Your task to perform on an android device: change timer sound Image 0: 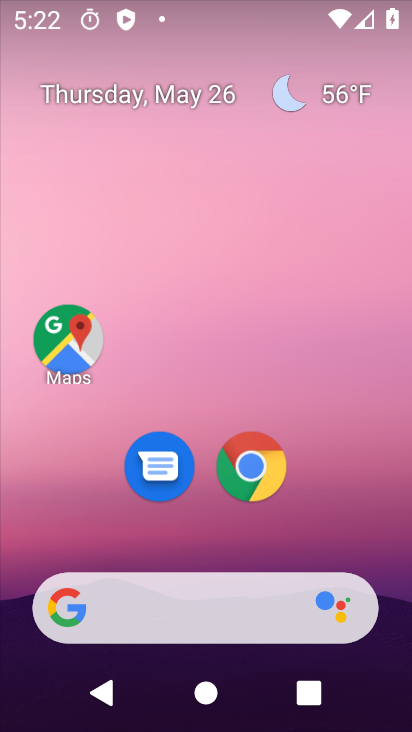
Step 0: drag from (292, 535) to (327, 102)
Your task to perform on an android device: change timer sound Image 1: 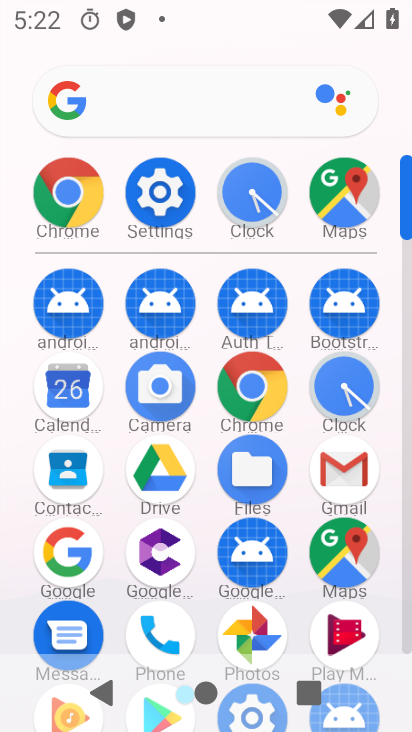
Step 1: click (160, 196)
Your task to perform on an android device: change timer sound Image 2: 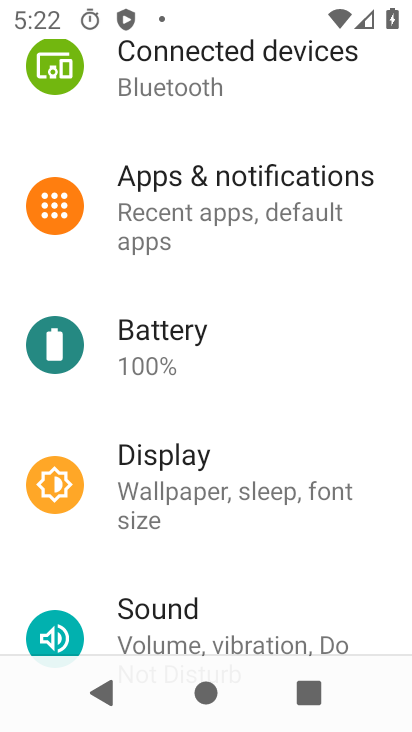
Step 2: drag from (286, 586) to (383, 193)
Your task to perform on an android device: change timer sound Image 3: 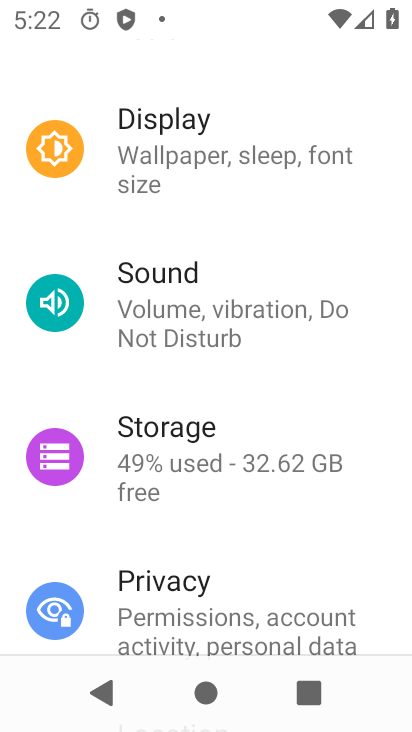
Step 3: press back button
Your task to perform on an android device: change timer sound Image 4: 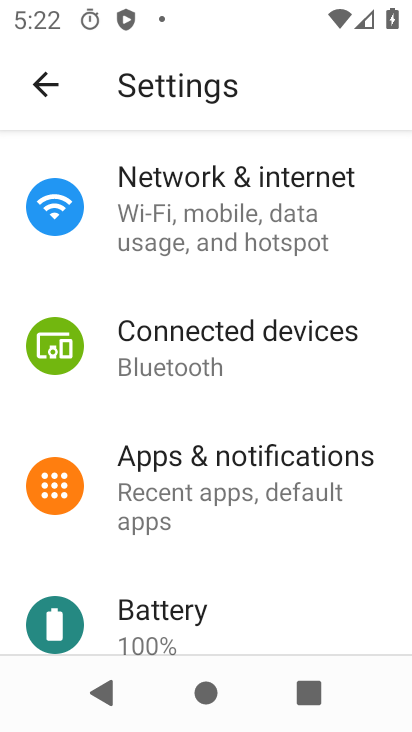
Step 4: press back button
Your task to perform on an android device: change timer sound Image 5: 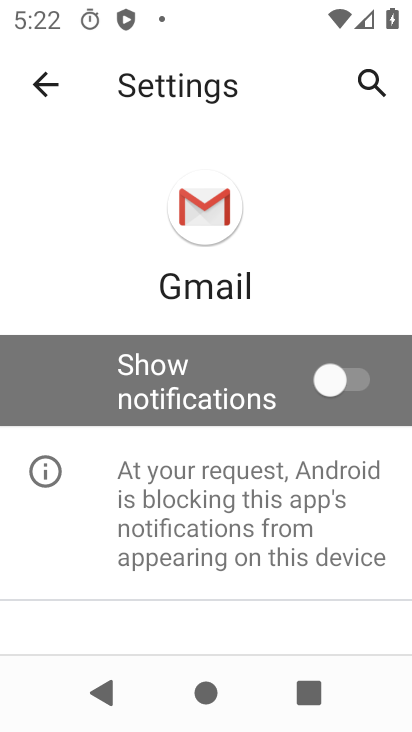
Step 5: press home button
Your task to perform on an android device: change timer sound Image 6: 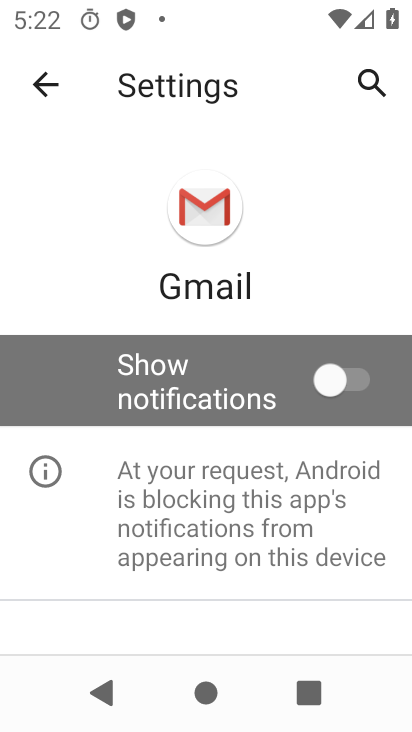
Step 6: press home button
Your task to perform on an android device: change timer sound Image 7: 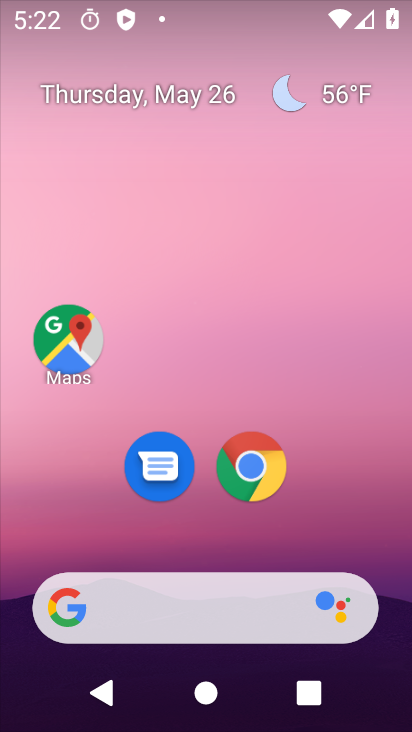
Step 7: drag from (321, 535) to (376, 70)
Your task to perform on an android device: change timer sound Image 8: 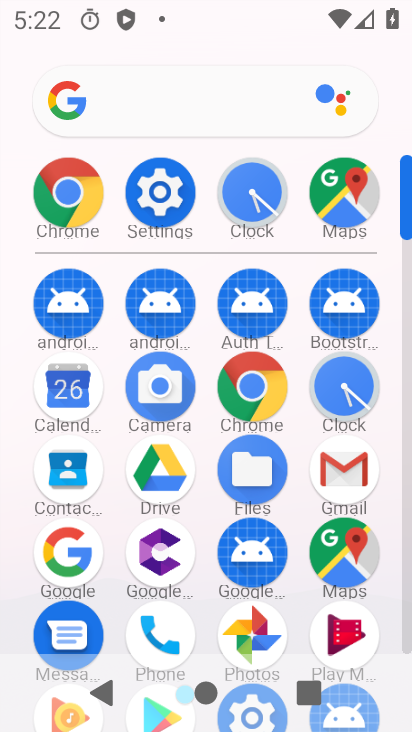
Step 8: click (341, 392)
Your task to perform on an android device: change timer sound Image 9: 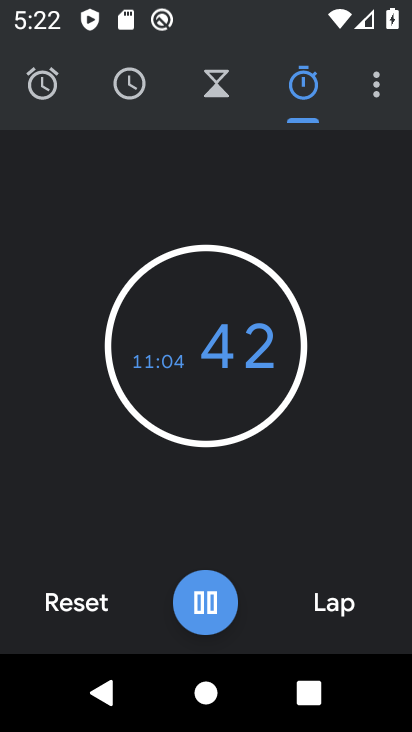
Step 9: click (375, 95)
Your task to perform on an android device: change timer sound Image 10: 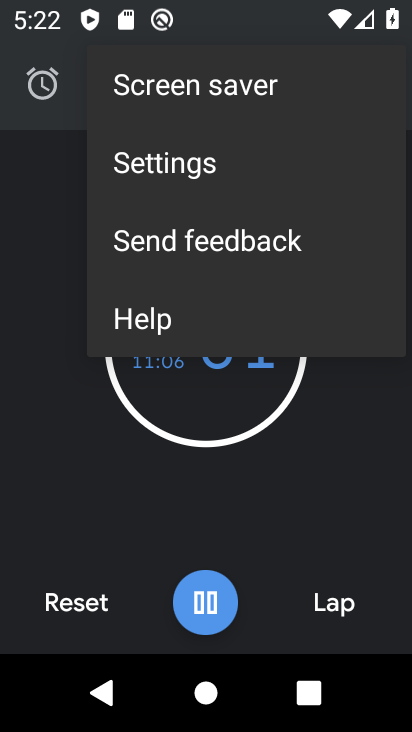
Step 10: click (232, 165)
Your task to perform on an android device: change timer sound Image 11: 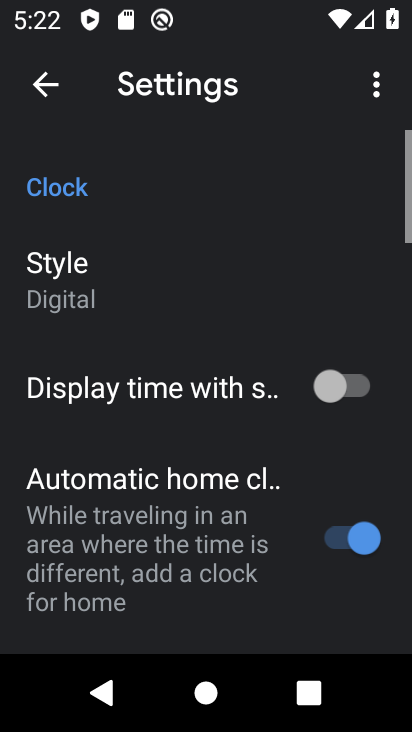
Step 11: drag from (248, 510) to (290, 109)
Your task to perform on an android device: change timer sound Image 12: 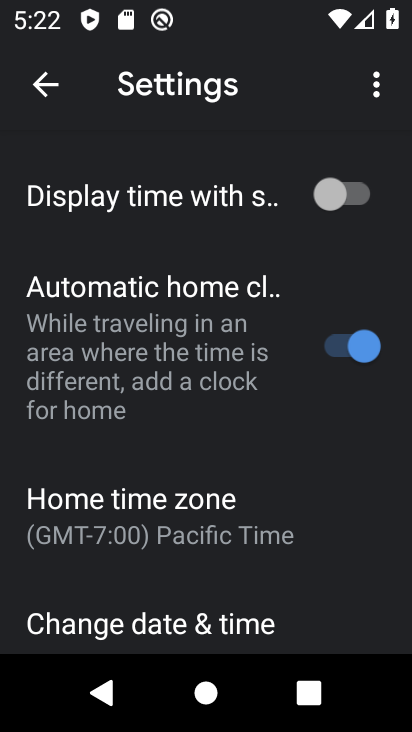
Step 12: drag from (193, 525) to (272, 35)
Your task to perform on an android device: change timer sound Image 13: 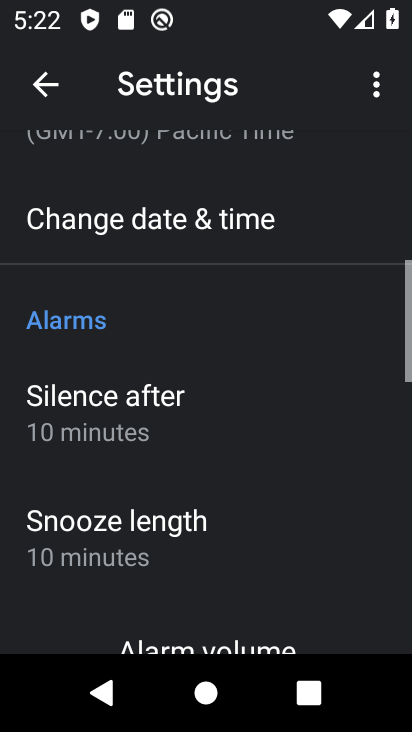
Step 13: drag from (183, 477) to (241, 21)
Your task to perform on an android device: change timer sound Image 14: 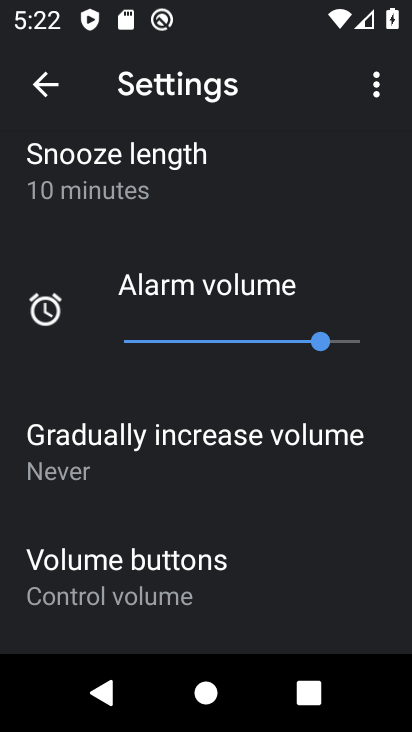
Step 14: drag from (173, 492) to (210, 136)
Your task to perform on an android device: change timer sound Image 15: 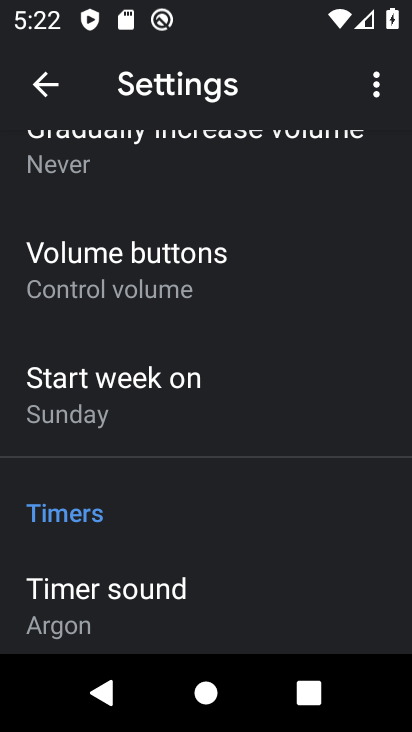
Step 15: click (76, 595)
Your task to perform on an android device: change timer sound Image 16: 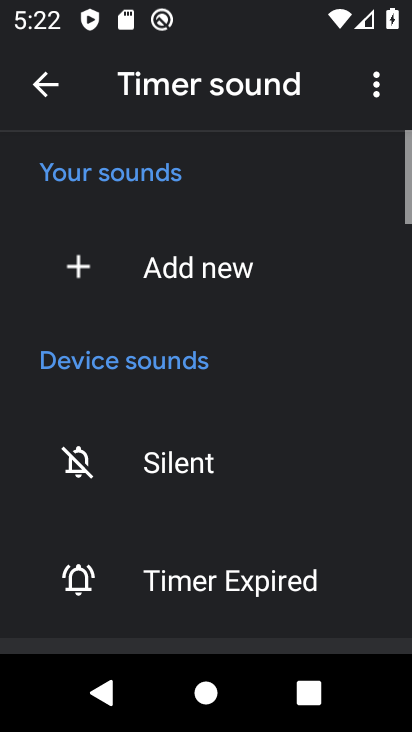
Step 16: drag from (338, 556) to (337, 205)
Your task to perform on an android device: change timer sound Image 17: 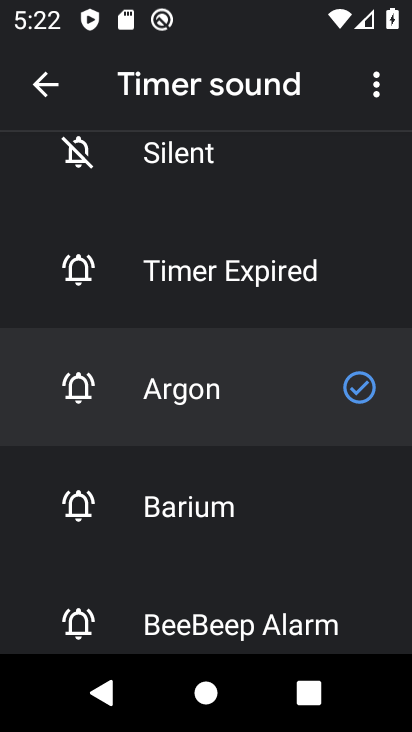
Step 17: click (288, 530)
Your task to perform on an android device: change timer sound Image 18: 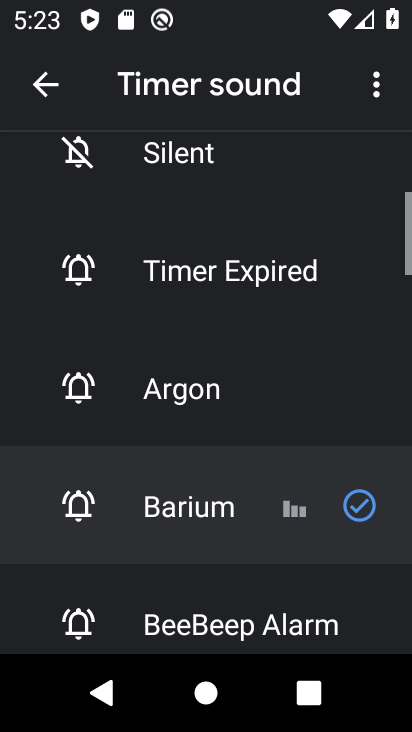
Step 18: click (365, 490)
Your task to perform on an android device: change timer sound Image 19: 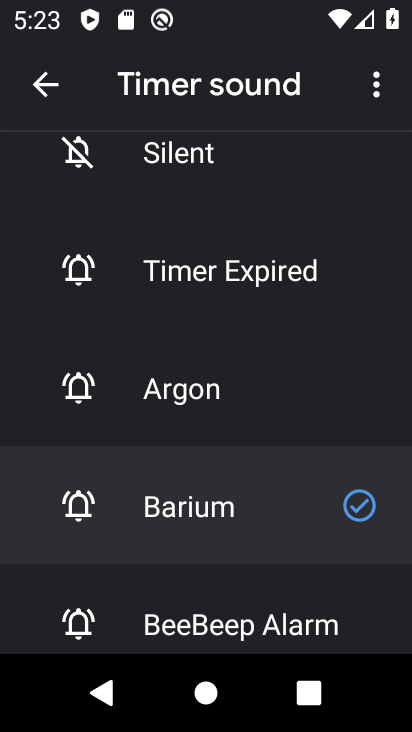
Step 19: task complete